Your task to perform on an android device: Do I have any events today? Image 0: 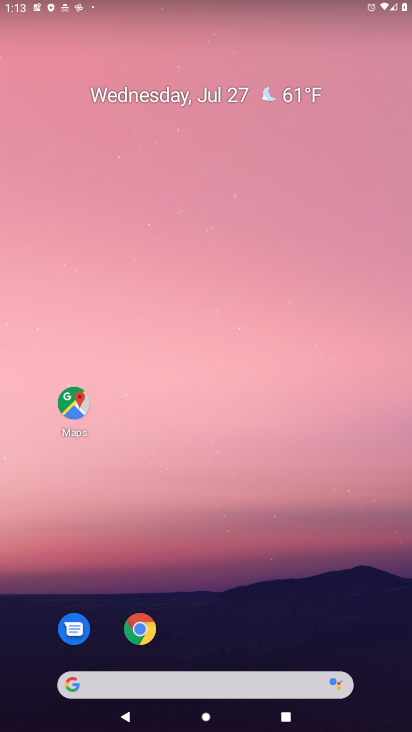
Step 0: drag from (305, 639) to (296, 113)
Your task to perform on an android device: Do I have any events today? Image 1: 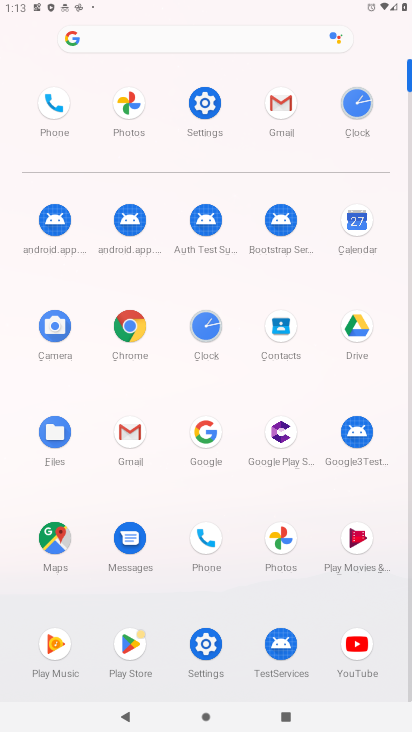
Step 1: click (369, 240)
Your task to perform on an android device: Do I have any events today? Image 2: 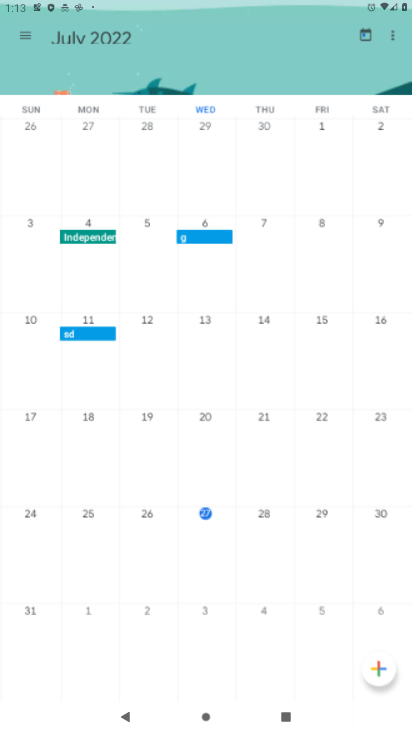
Step 2: task complete